Your task to perform on an android device: When is my next appointment? Image 0: 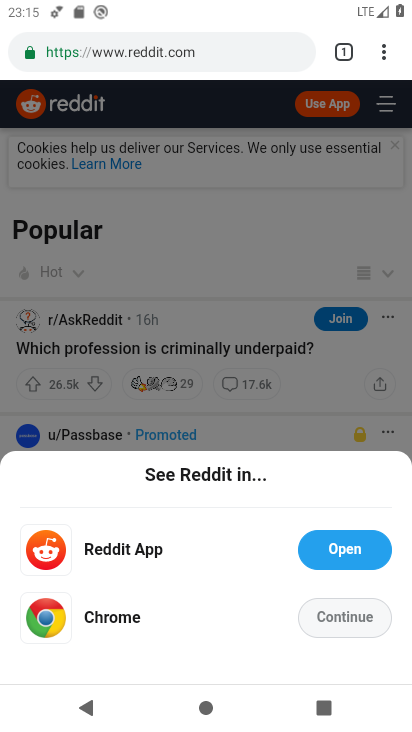
Step 0: press home button
Your task to perform on an android device: When is my next appointment? Image 1: 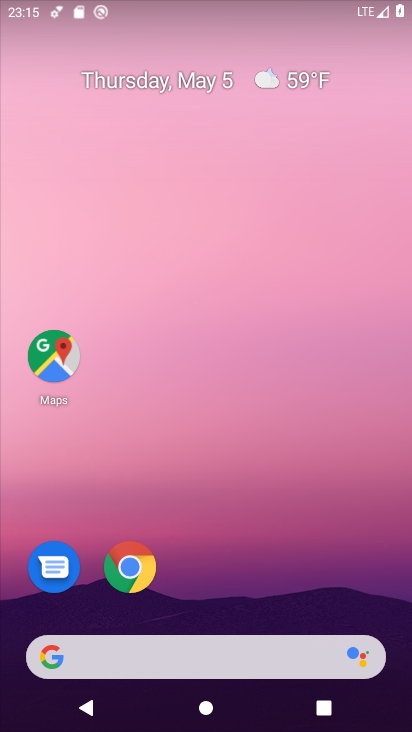
Step 1: drag from (336, 611) to (295, 14)
Your task to perform on an android device: When is my next appointment? Image 2: 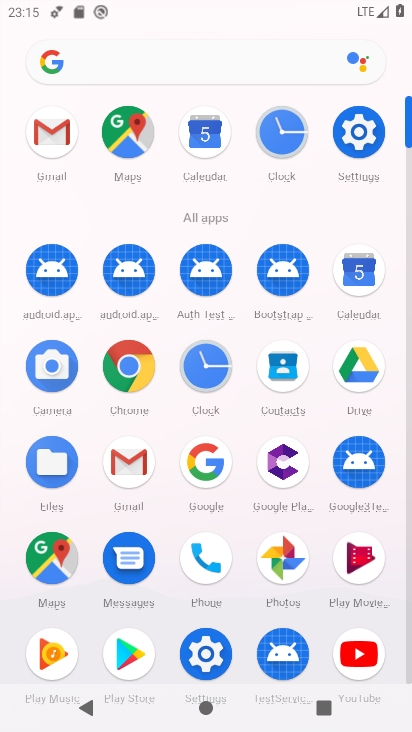
Step 2: click (204, 136)
Your task to perform on an android device: When is my next appointment? Image 3: 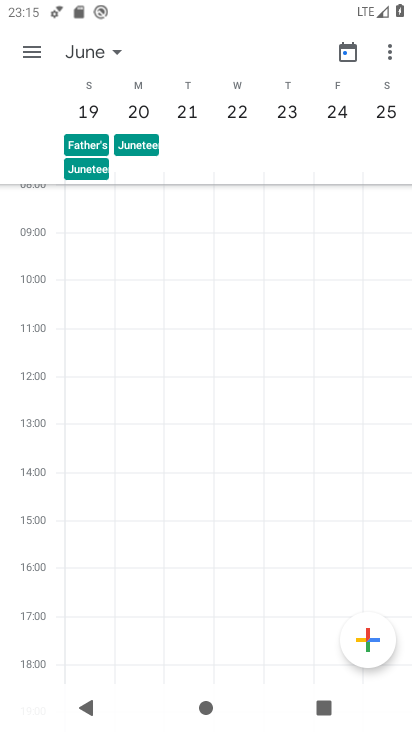
Step 3: click (120, 49)
Your task to perform on an android device: When is my next appointment? Image 4: 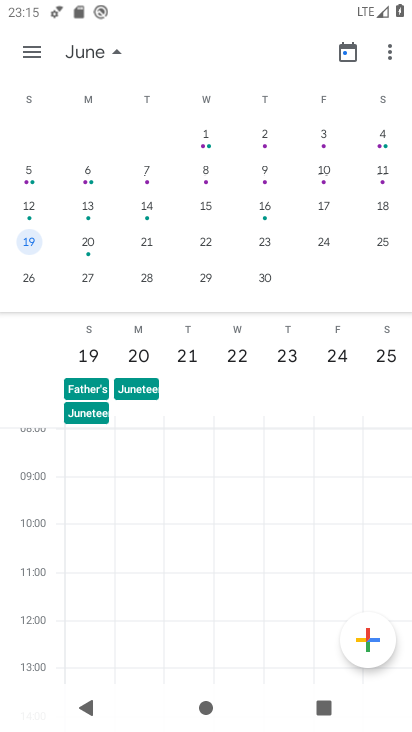
Step 4: drag from (136, 187) to (409, 183)
Your task to perform on an android device: When is my next appointment? Image 5: 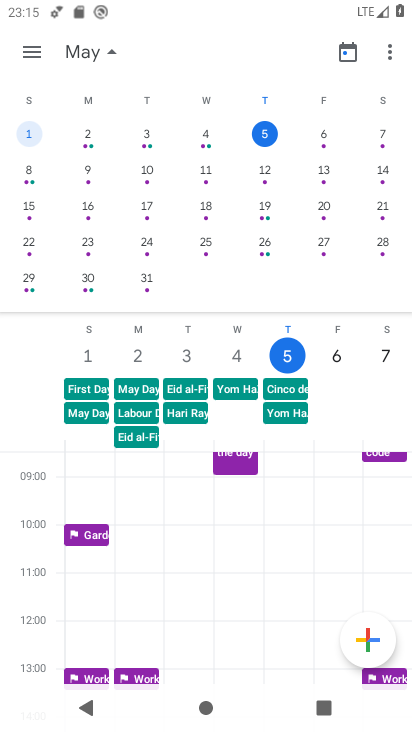
Step 5: click (26, 52)
Your task to perform on an android device: When is my next appointment? Image 6: 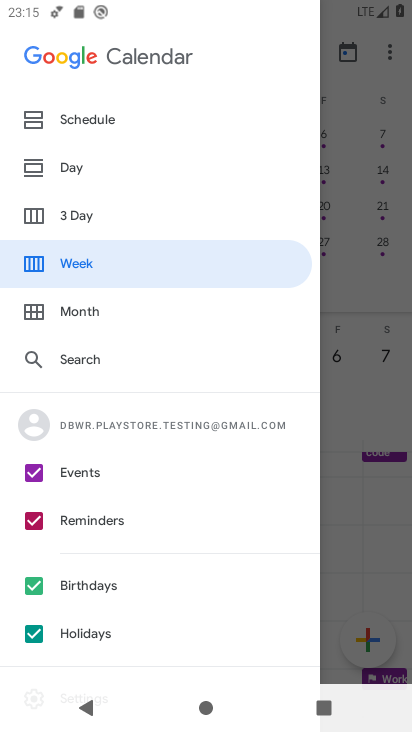
Step 6: click (50, 124)
Your task to perform on an android device: When is my next appointment? Image 7: 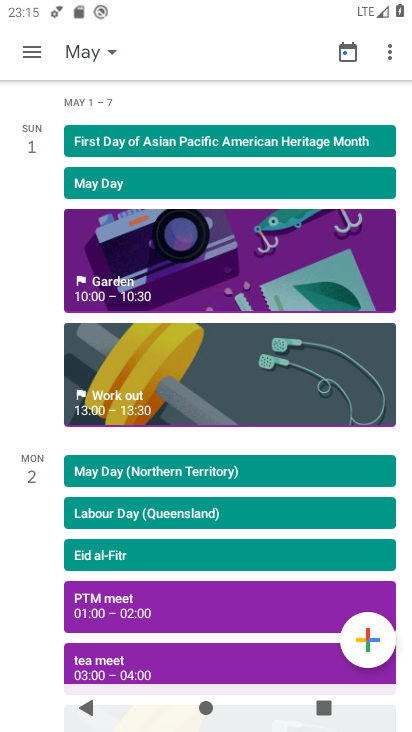
Step 7: click (24, 55)
Your task to perform on an android device: When is my next appointment? Image 8: 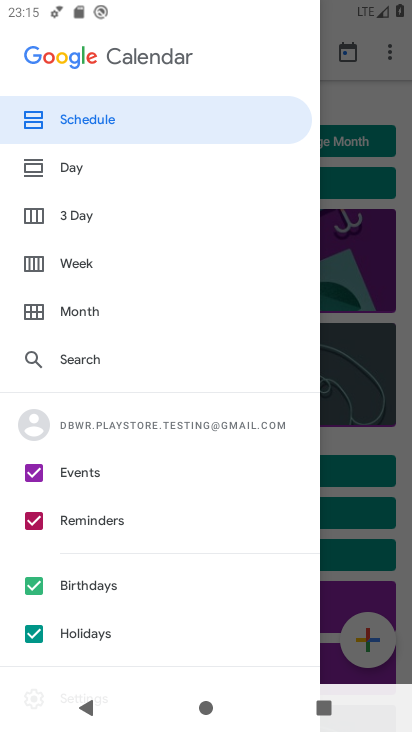
Step 8: click (37, 517)
Your task to perform on an android device: When is my next appointment? Image 9: 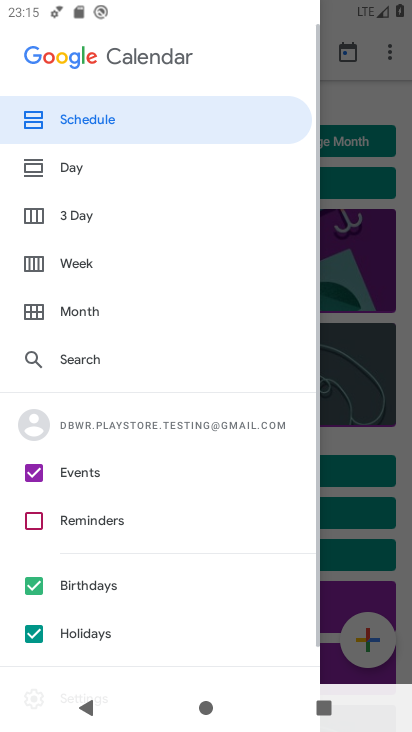
Step 9: click (36, 588)
Your task to perform on an android device: When is my next appointment? Image 10: 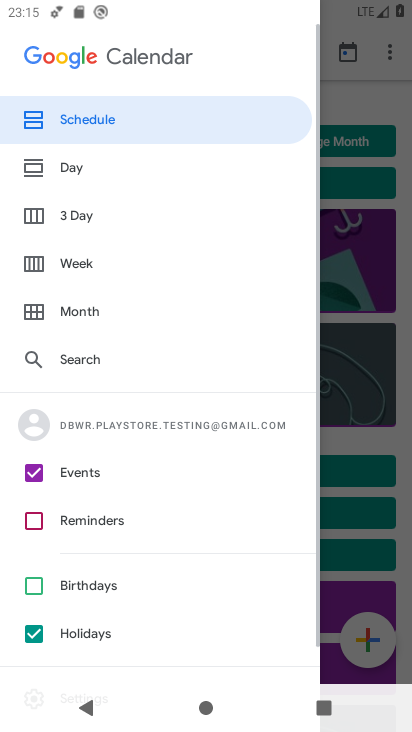
Step 10: click (40, 634)
Your task to perform on an android device: When is my next appointment? Image 11: 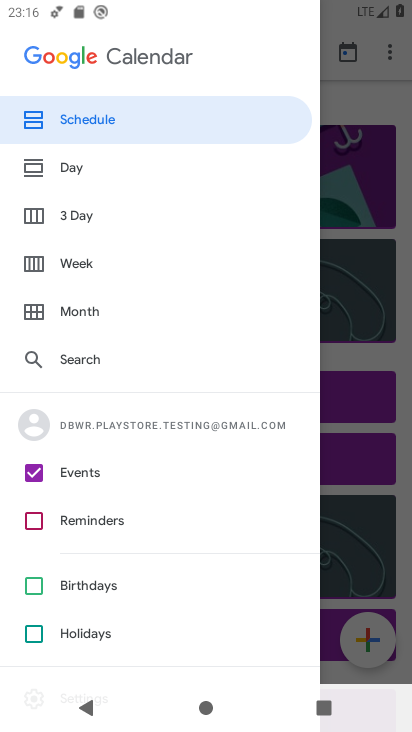
Step 11: click (34, 518)
Your task to perform on an android device: When is my next appointment? Image 12: 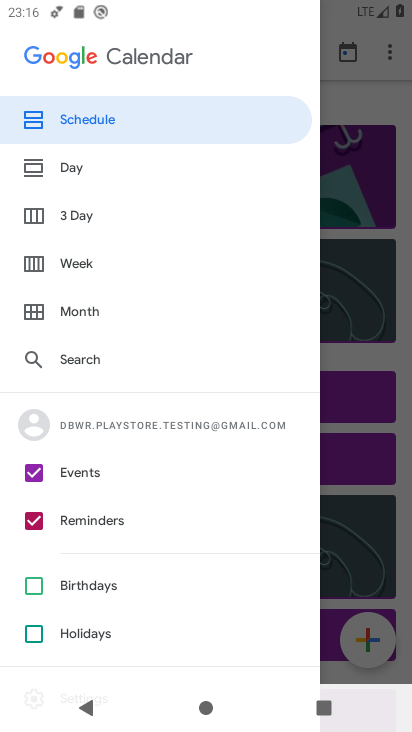
Step 12: click (62, 114)
Your task to perform on an android device: When is my next appointment? Image 13: 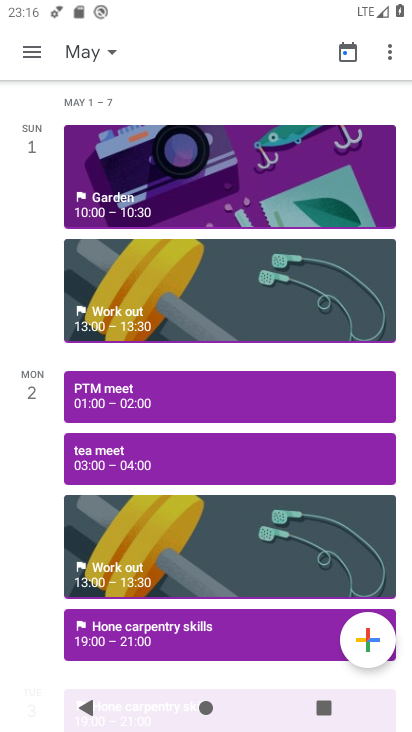
Step 13: drag from (194, 437) to (195, 134)
Your task to perform on an android device: When is my next appointment? Image 14: 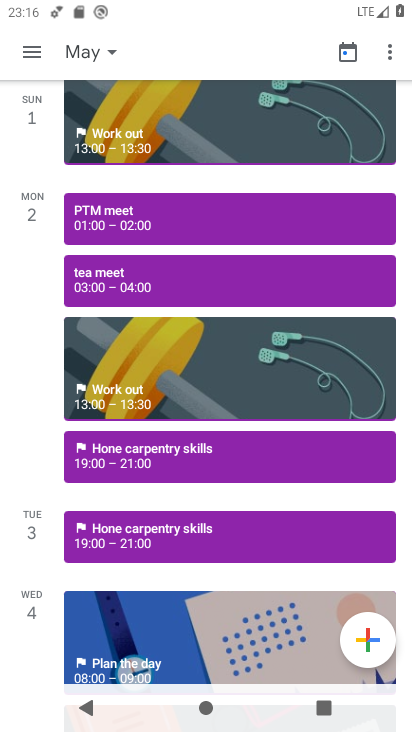
Step 14: drag from (192, 485) to (197, 57)
Your task to perform on an android device: When is my next appointment? Image 15: 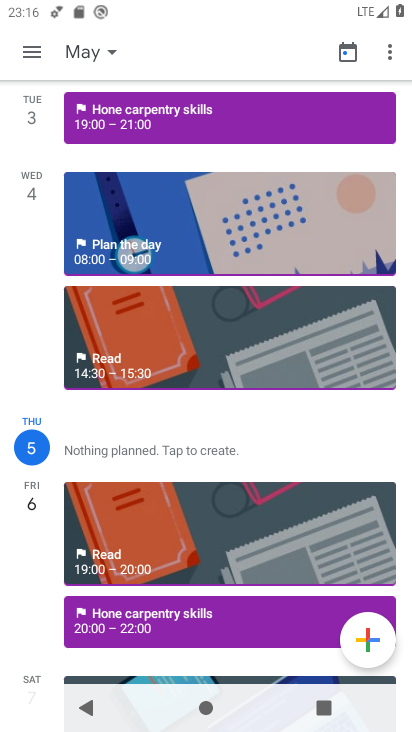
Step 15: drag from (135, 492) to (143, 194)
Your task to perform on an android device: When is my next appointment? Image 16: 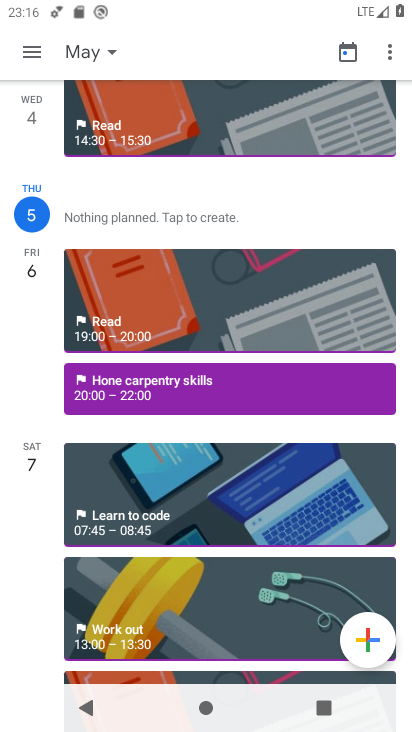
Step 16: click (146, 384)
Your task to perform on an android device: When is my next appointment? Image 17: 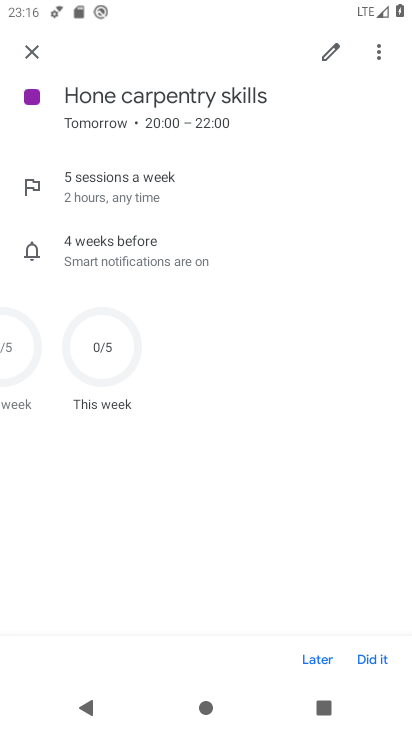
Step 17: task complete